Your task to perform on an android device: Go to battery settings Image 0: 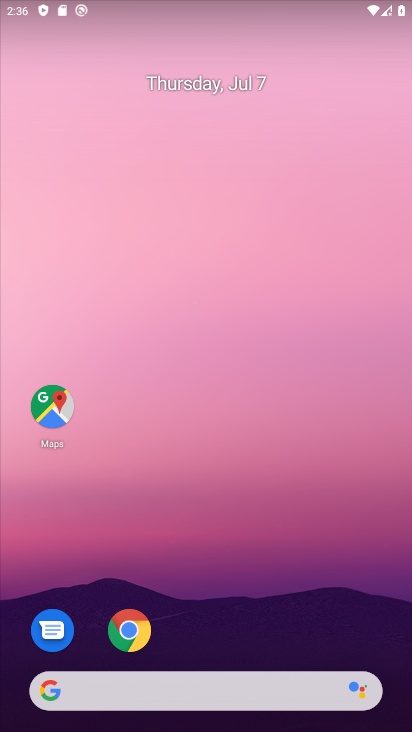
Step 0: click (207, 298)
Your task to perform on an android device: Go to battery settings Image 1: 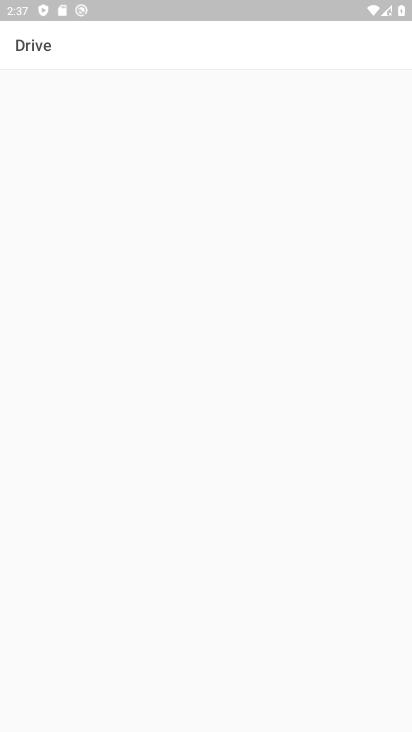
Step 1: press home button
Your task to perform on an android device: Go to battery settings Image 2: 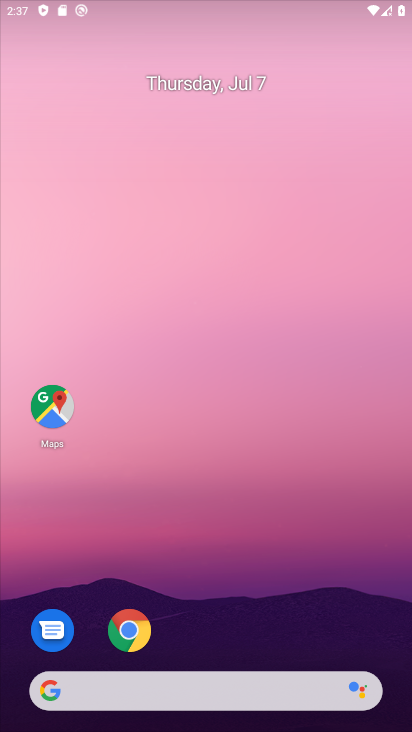
Step 2: drag from (274, 632) to (252, 210)
Your task to perform on an android device: Go to battery settings Image 3: 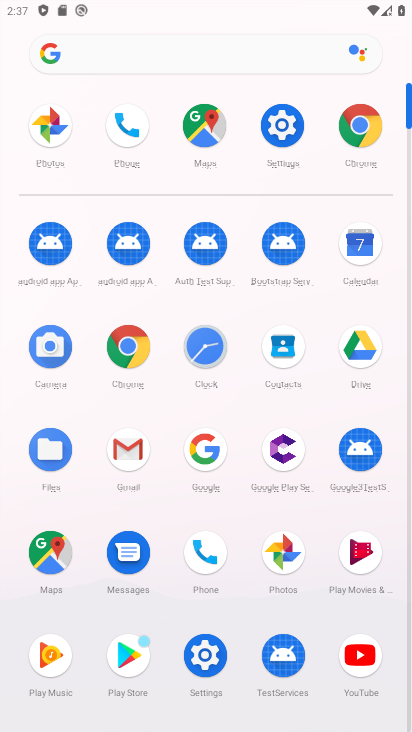
Step 3: click (275, 131)
Your task to perform on an android device: Go to battery settings Image 4: 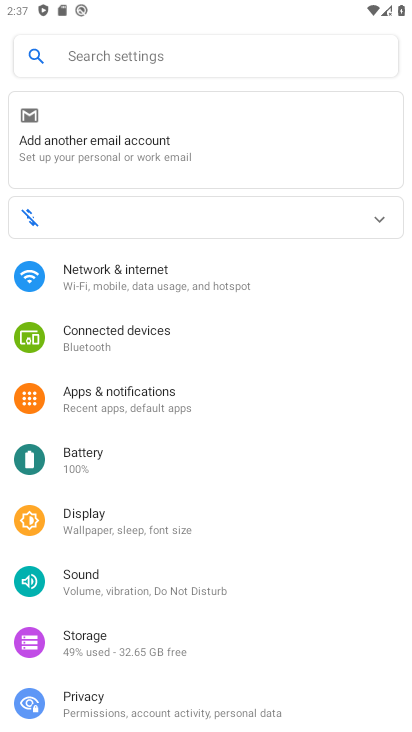
Step 4: click (130, 462)
Your task to perform on an android device: Go to battery settings Image 5: 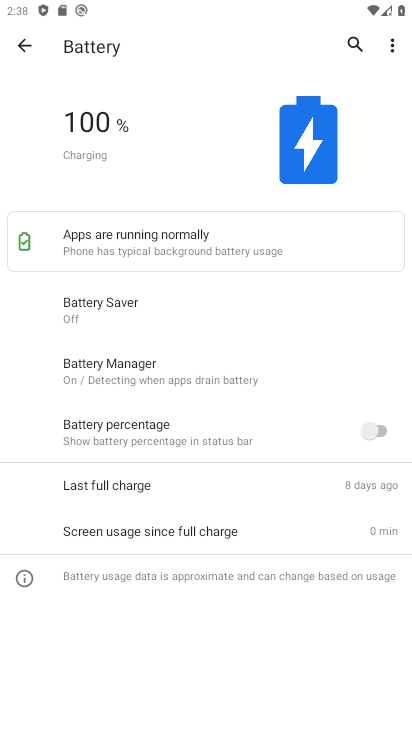
Step 5: task complete